Your task to perform on an android device: Search for usb-b on newegg, select the first entry, add it to the cart, then select checkout. Image 0: 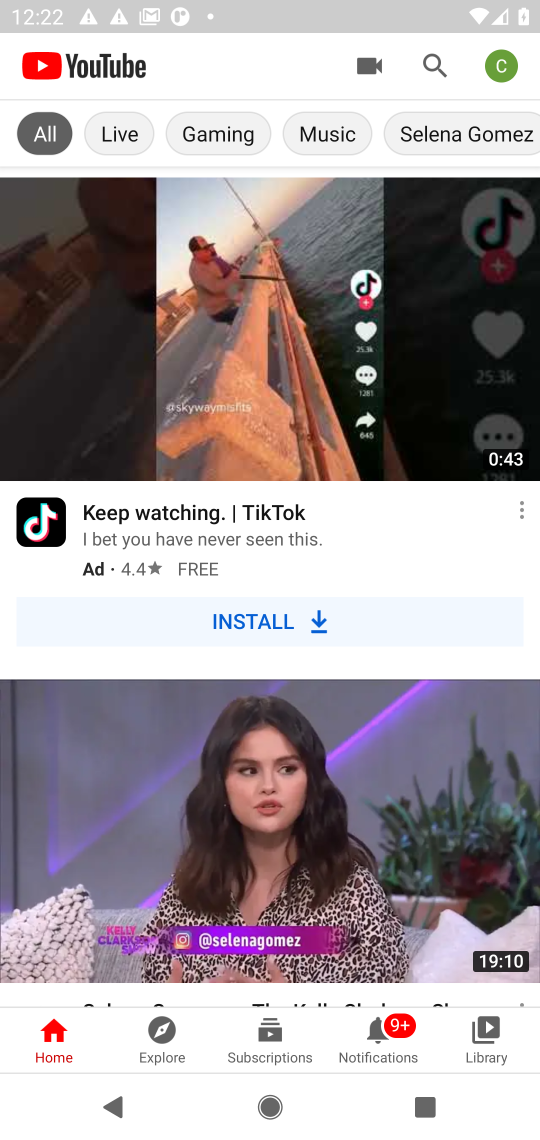
Step 0: press home button
Your task to perform on an android device: Search for usb-b on newegg, select the first entry, add it to the cart, then select checkout. Image 1: 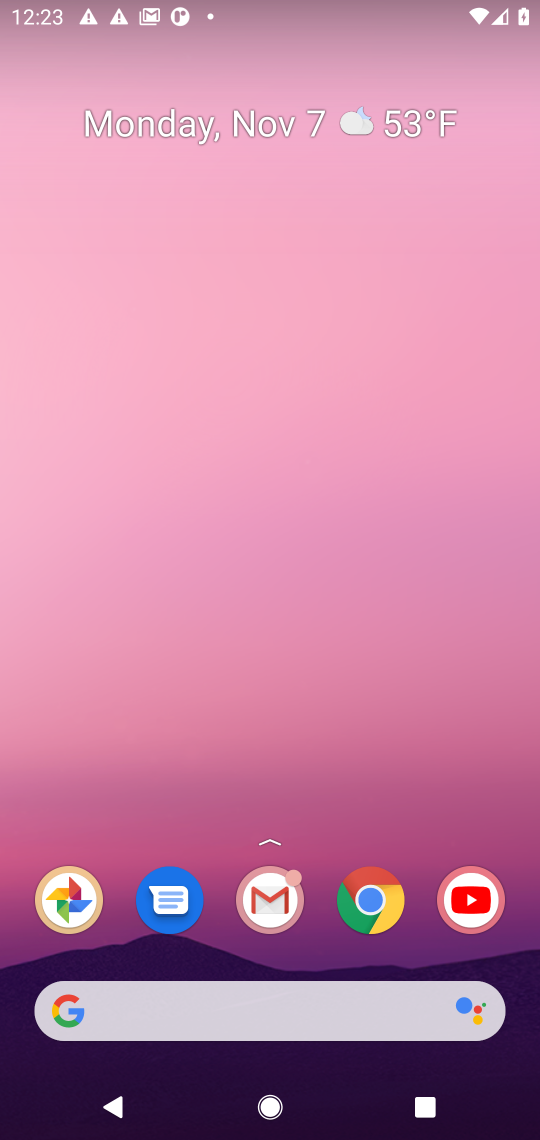
Step 1: click (224, 1008)
Your task to perform on an android device: Search for usb-b on newegg, select the first entry, add it to the cart, then select checkout. Image 2: 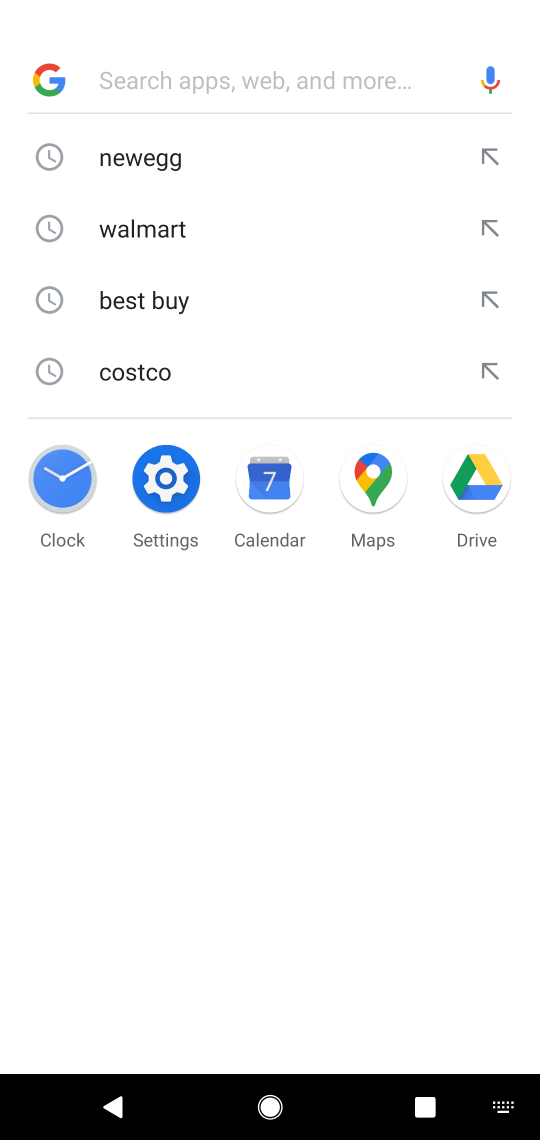
Step 2: click (177, 163)
Your task to perform on an android device: Search for usb-b on newegg, select the first entry, add it to the cart, then select checkout. Image 3: 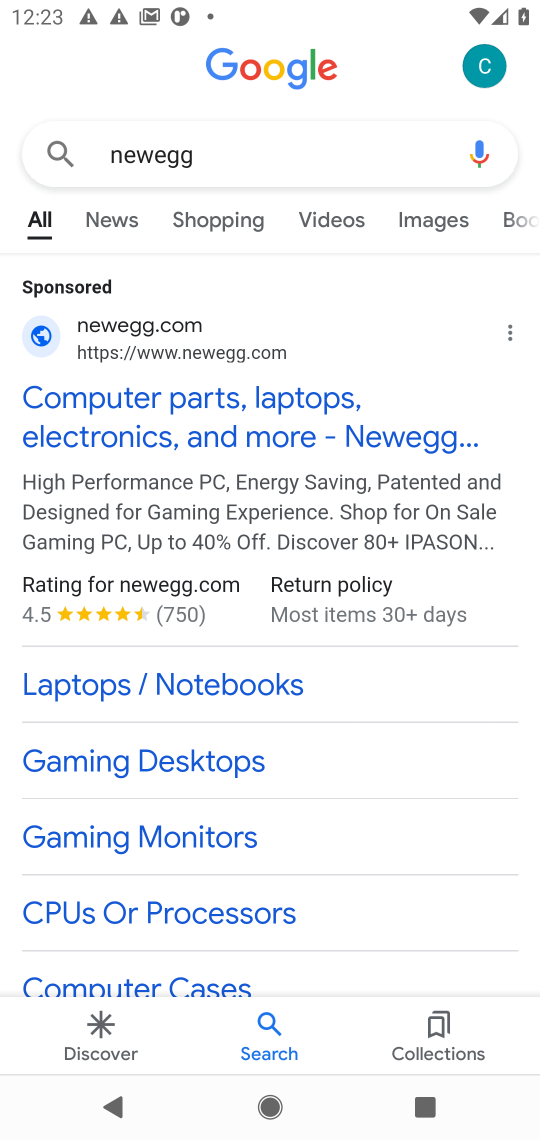
Step 3: click (252, 394)
Your task to perform on an android device: Search for usb-b on newegg, select the first entry, add it to the cart, then select checkout. Image 4: 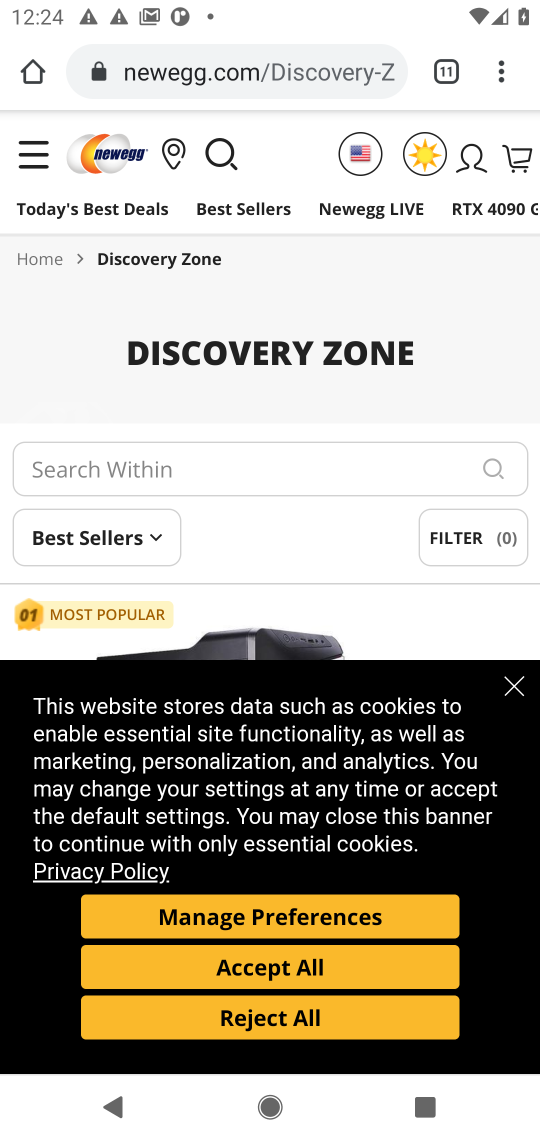
Step 4: task complete